Your task to perform on an android device: add a contact Image 0: 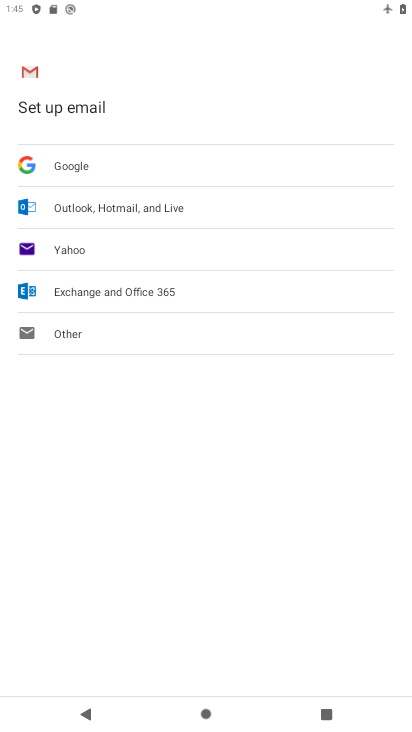
Step 0: press home button
Your task to perform on an android device: add a contact Image 1: 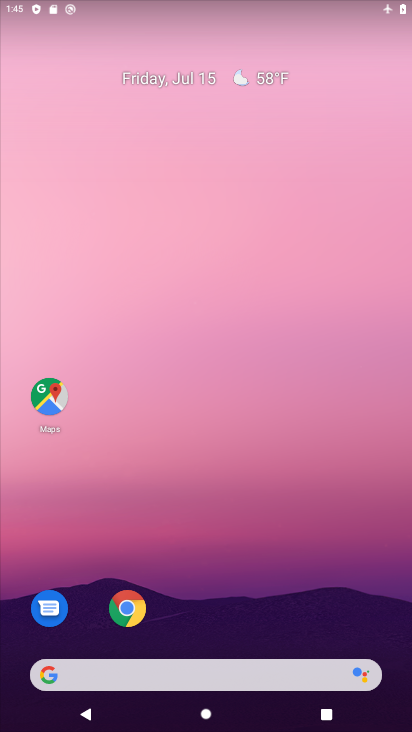
Step 1: drag from (253, 556) to (338, 155)
Your task to perform on an android device: add a contact Image 2: 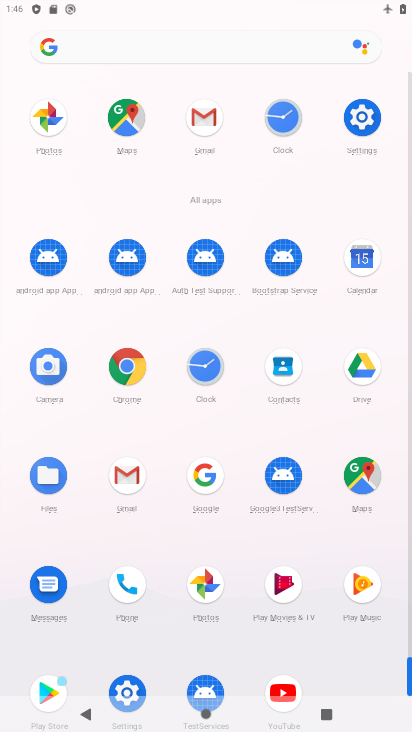
Step 2: click (278, 361)
Your task to perform on an android device: add a contact Image 3: 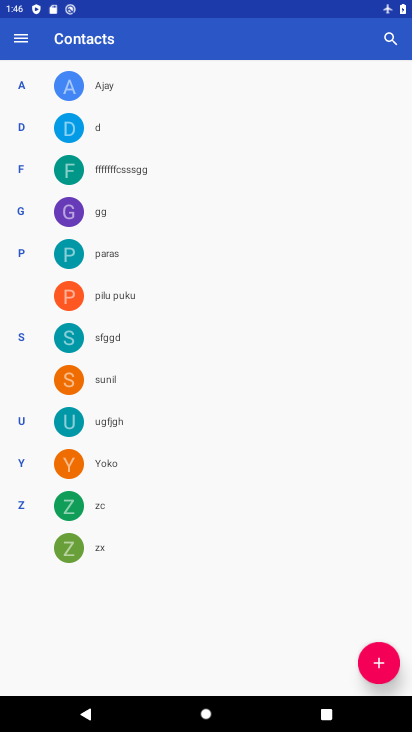
Step 3: click (369, 680)
Your task to perform on an android device: add a contact Image 4: 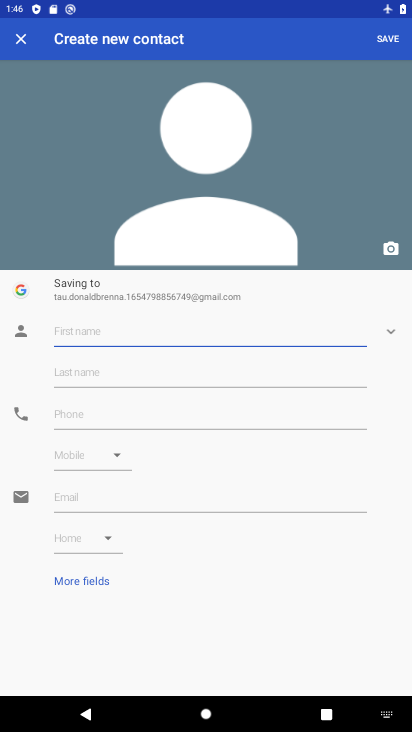
Step 4: type "gugggg"
Your task to perform on an android device: add a contact Image 5: 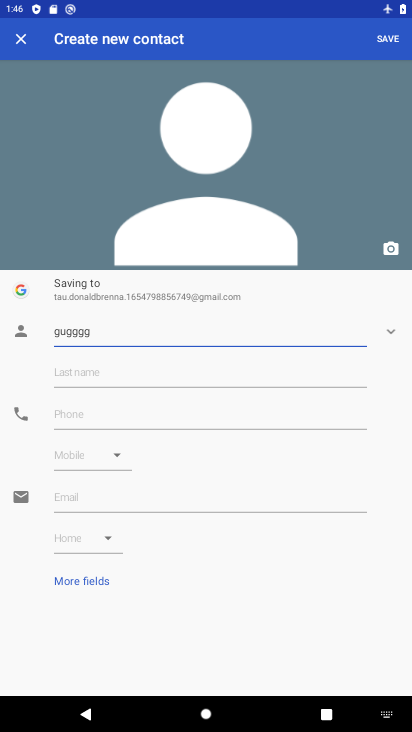
Step 5: click (92, 418)
Your task to perform on an android device: add a contact Image 6: 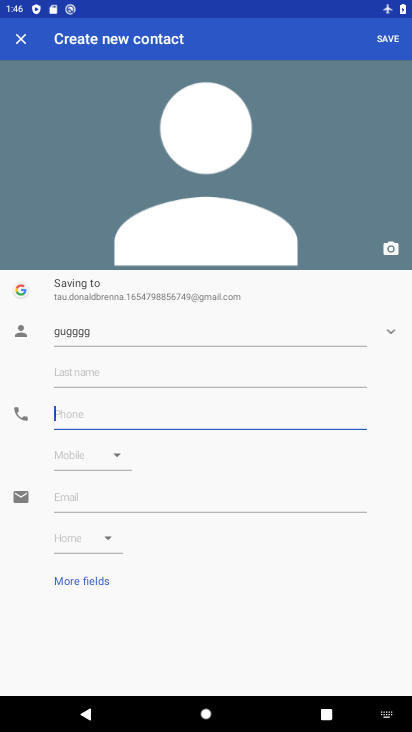
Step 6: type "67765564434"
Your task to perform on an android device: add a contact Image 7: 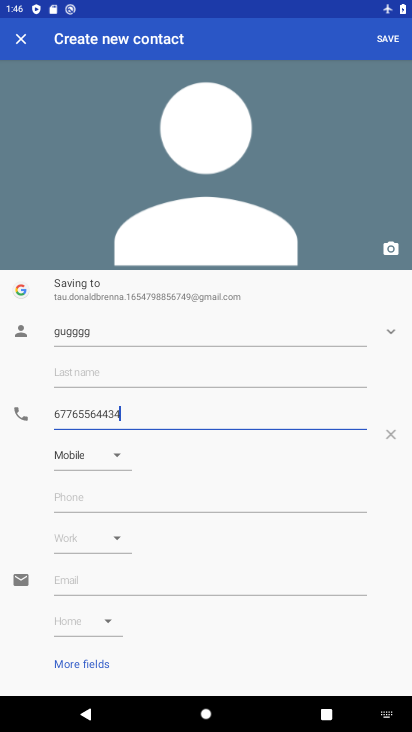
Step 7: click (389, 33)
Your task to perform on an android device: add a contact Image 8: 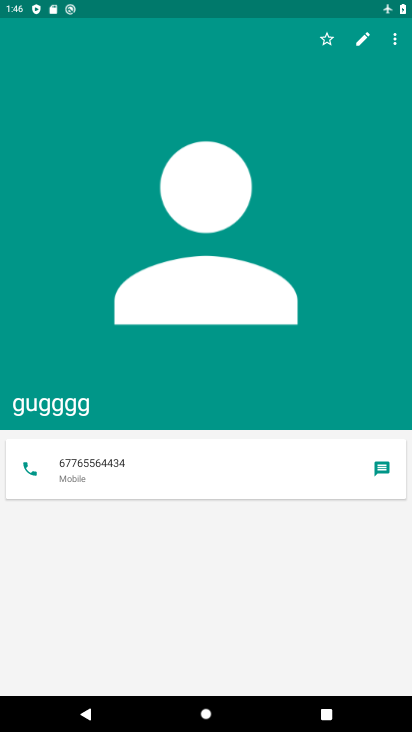
Step 8: task complete